Your task to perform on an android device: change text size in settings app Image 0: 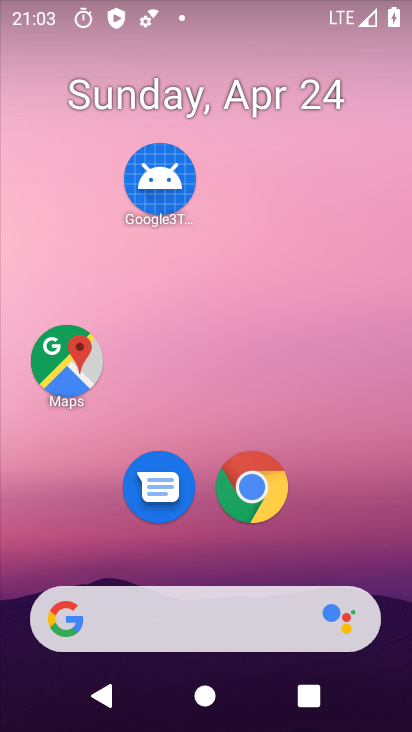
Step 0: drag from (316, 511) to (267, 171)
Your task to perform on an android device: change text size in settings app Image 1: 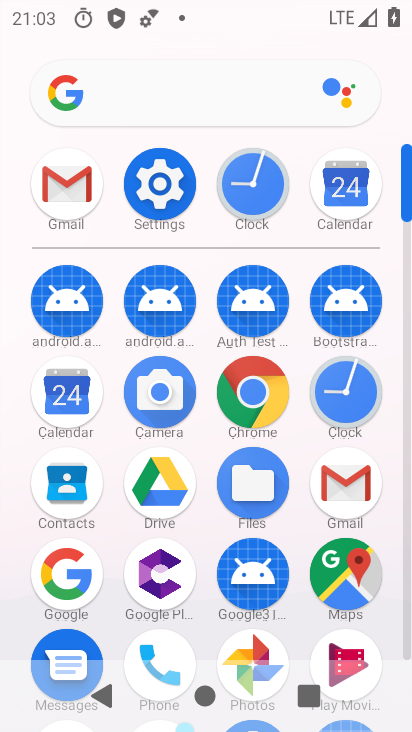
Step 1: click (158, 180)
Your task to perform on an android device: change text size in settings app Image 2: 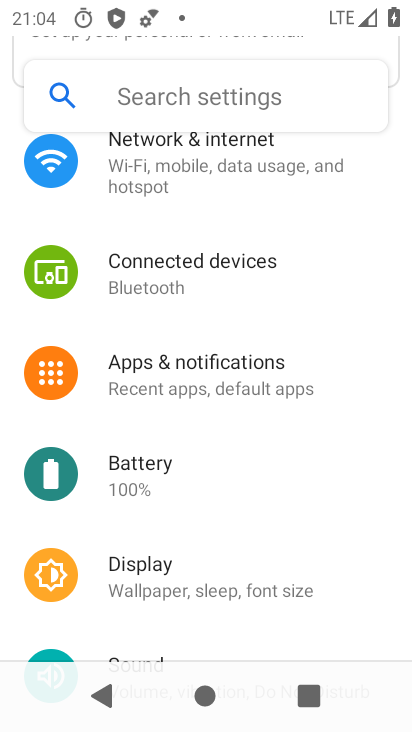
Step 2: click (193, 582)
Your task to perform on an android device: change text size in settings app Image 3: 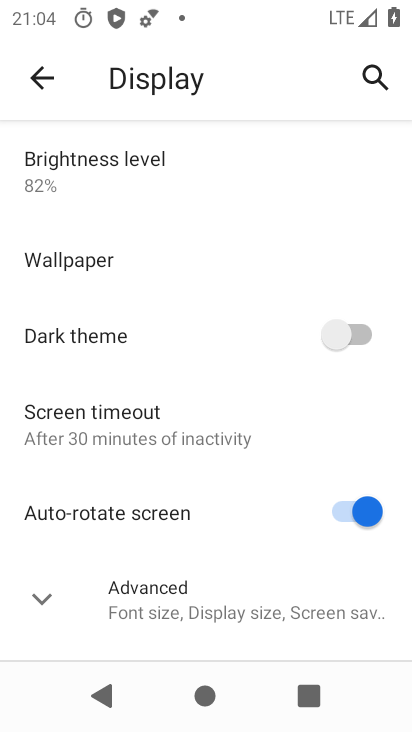
Step 3: click (181, 614)
Your task to perform on an android device: change text size in settings app Image 4: 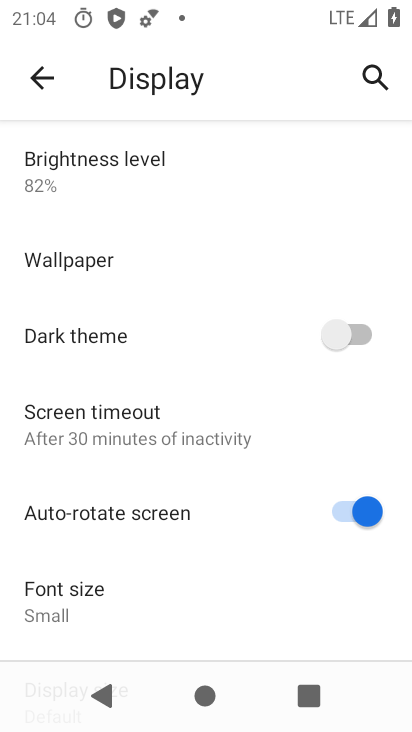
Step 4: click (43, 603)
Your task to perform on an android device: change text size in settings app Image 5: 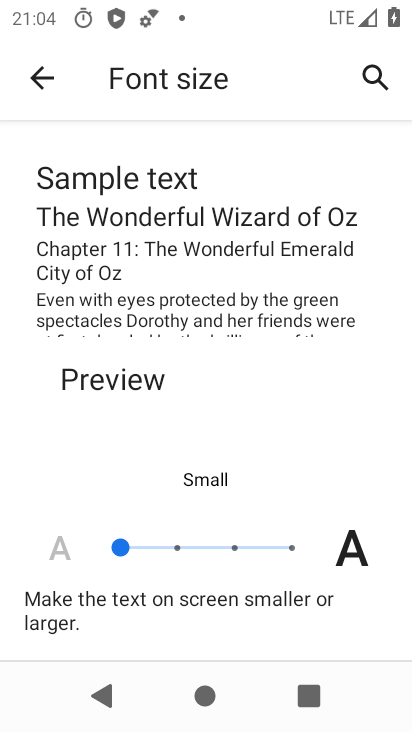
Step 5: click (232, 546)
Your task to perform on an android device: change text size in settings app Image 6: 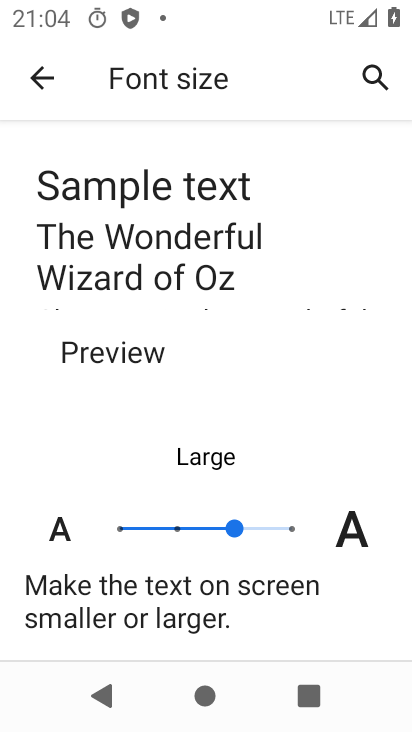
Step 6: task complete